Your task to perform on an android device: Search for vegetarian restaurants on Maps Image 0: 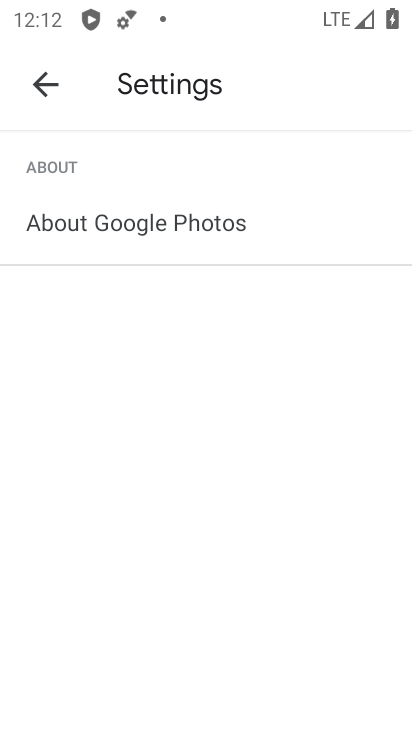
Step 0: press home button
Your task to perform on an android device: Search for vegetarian restaurants on Maps Image 1: 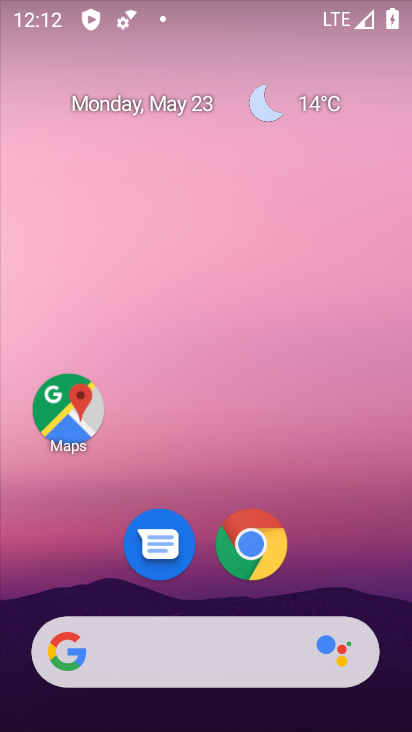
Step 1: click (65, 427)
Your task to perform on an android device: Search for vegetarian restaurants on Maps Image 2: 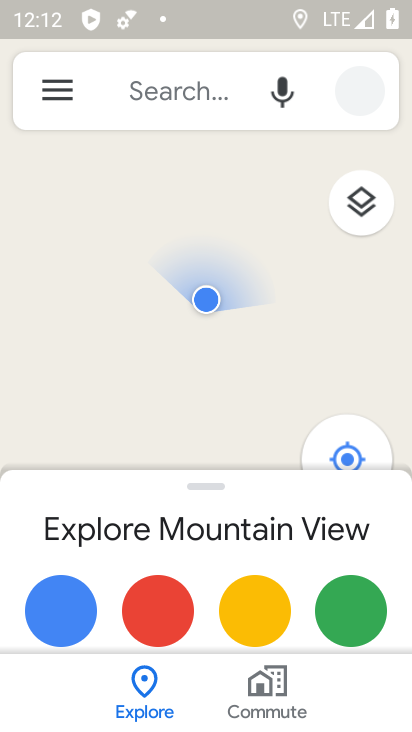
Step 2: click (189, 93)
Your task to perform on an android device: Search for vegetarian restaurants on Maps Image 3: 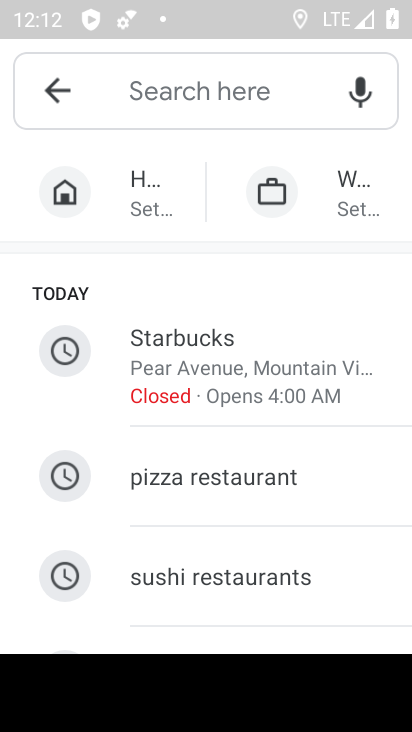
Step 3: drag from (205, 554) to (181, 302)
Your task to perform on an android device: Search for vegetarian restaurants on Maps Image 4: 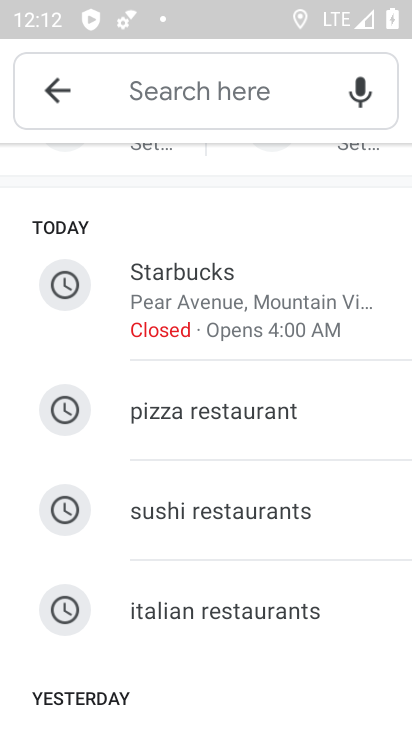
Step 4: drag from (170, 609) to (214, 309)
Your task to perform on an android device: Search for vegetarian restaurants on Maps Image 5: 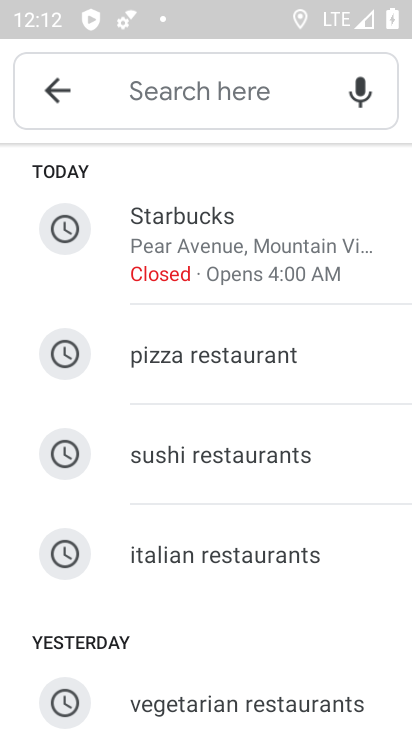
Step 5: click (199, 703)
Your task to perform on an android device: Search for vegetarian restaurants on Maps Image 6: 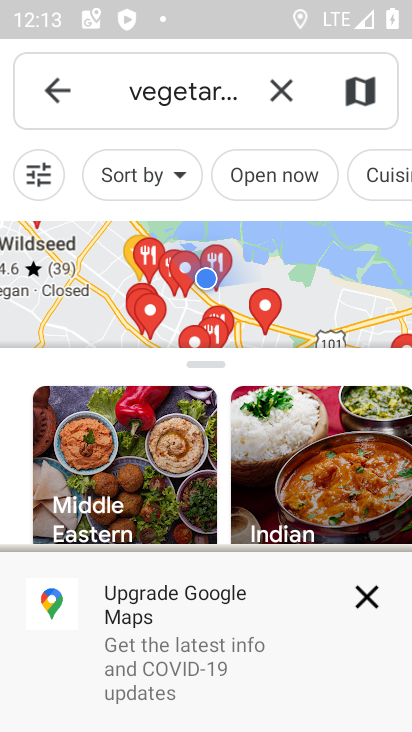
Step 6: task complete